Your task to perform on an android device: Open Yahoo.com Image 0: 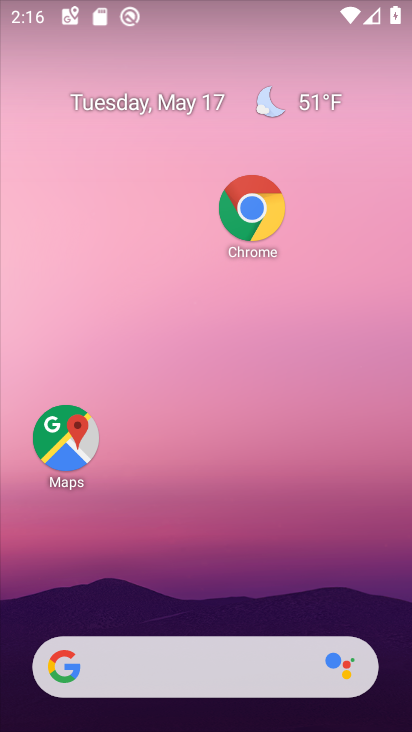
Step 0: drag from (159, 625) to (58, 102)
Your task to perform on an android device: Open Yahoo.com Image 1: 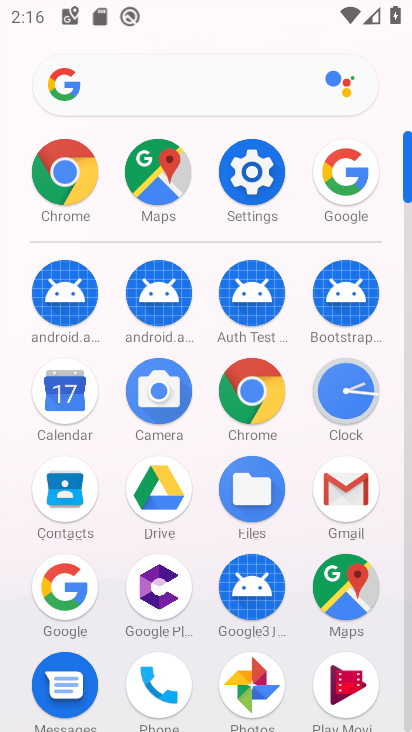
Step 1: click (239, 419)
Your task to perform on an android device: Open Yahoo.com Image 2: 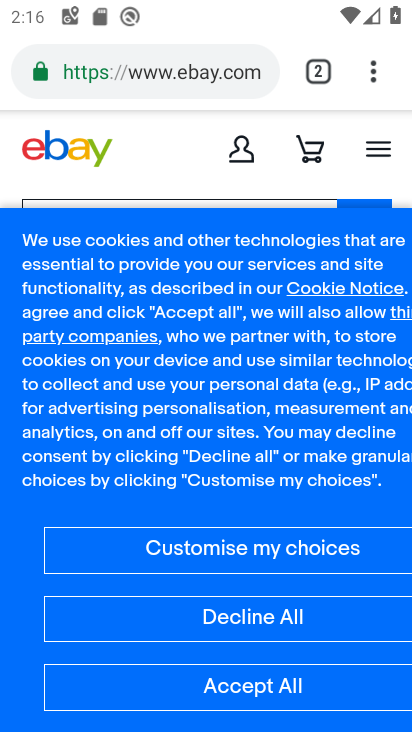
Step 2: click (301, 63)
Your task to perform on an android device: Open Yahoo.com Image 3: 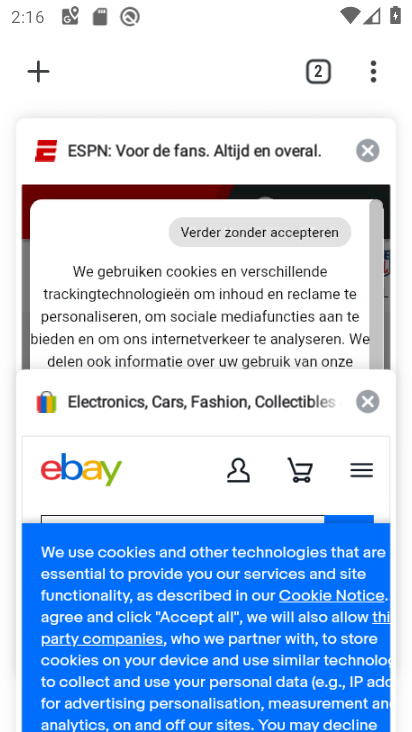
Step 3: click (23, 76)
Your task to perform on an android device: Open Yahoo.com Image 4: 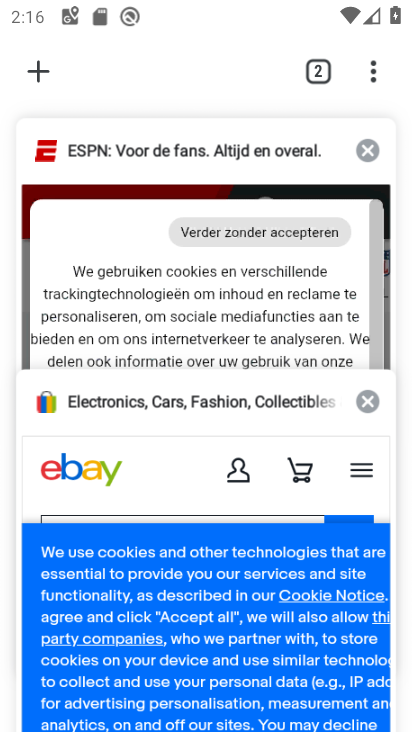
Step 4: click (42, 74)
Your task to perform on an android device: Open Yahoo.com Image 5: 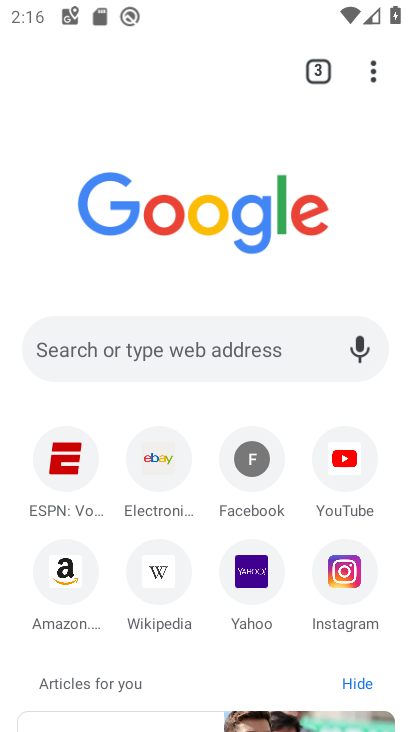
Step 5: click (251, 587)
Your task to perform on an android device: Open Yahoo.com Image 6: 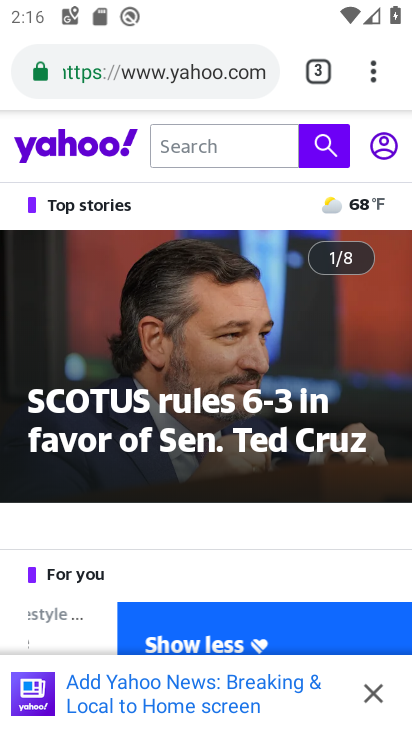
Step 6: task complete